Your task to perform on an android device: Open eBay Image 0: 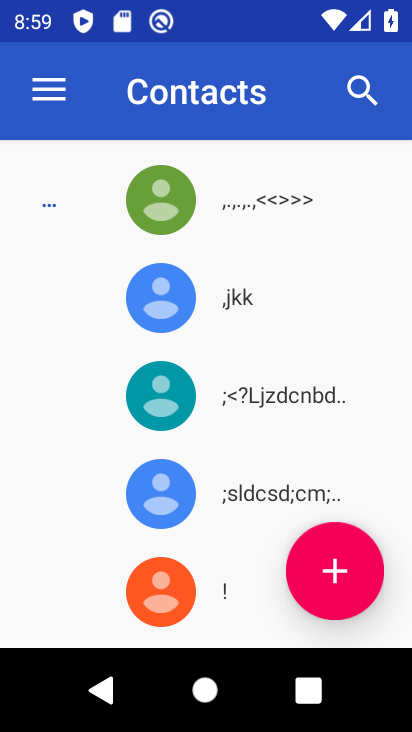
Step 0: press home button
Your task to perform on an android device: Open eBay Image 1: 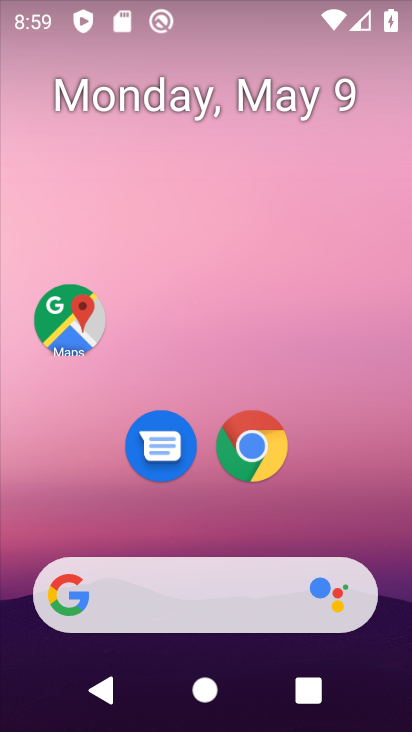
Step 1: click (240, 463)
Your task to perform on an android device: Open eBay Image 2: 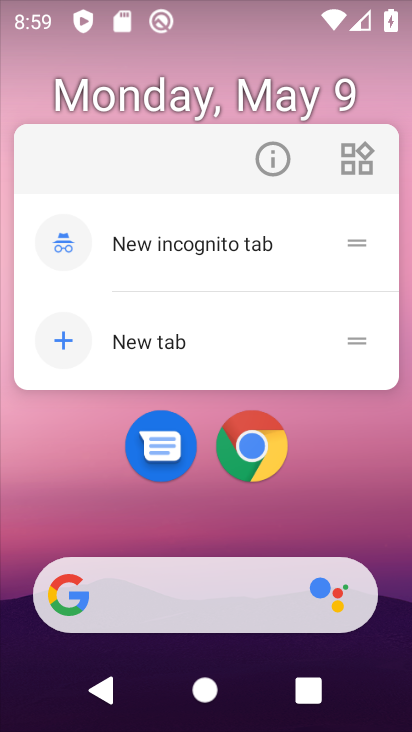
Step 2: click (243, 433)
Your task to perform on an android device: Open eBay Image 3: 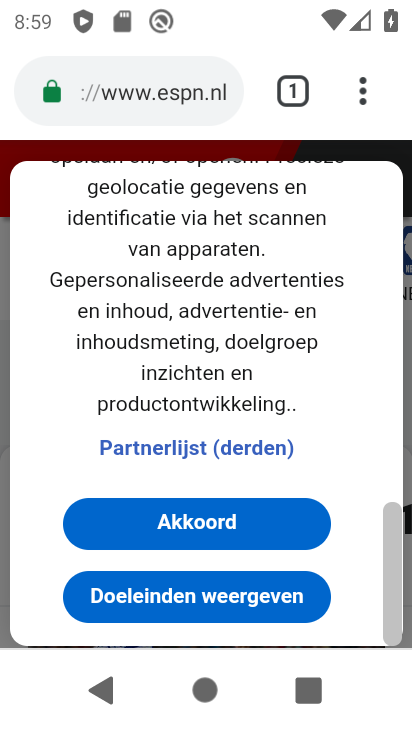
Step 3: click (217, 80)
Your task to perform on an android device: Open eBay Image 4: 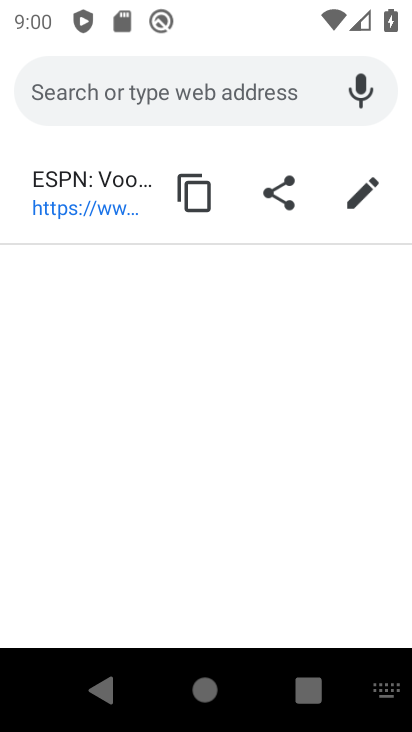
Step 4: type "ebay"
Your task to perform on an android device: Open eBay Image 5: 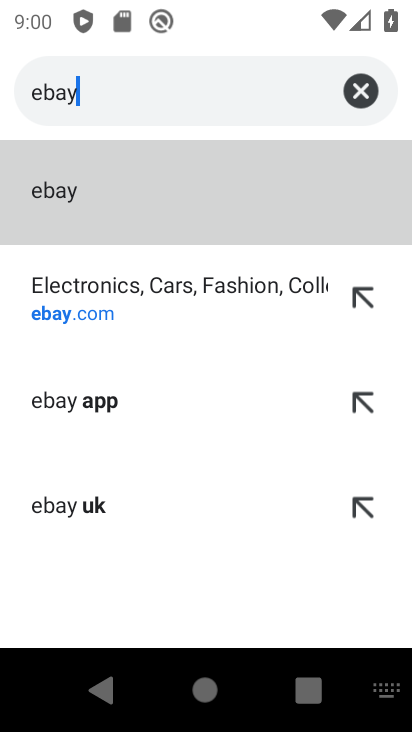
Step 5: click (204, 207)
Your task to perform on an android device: Open eBay Image 6: 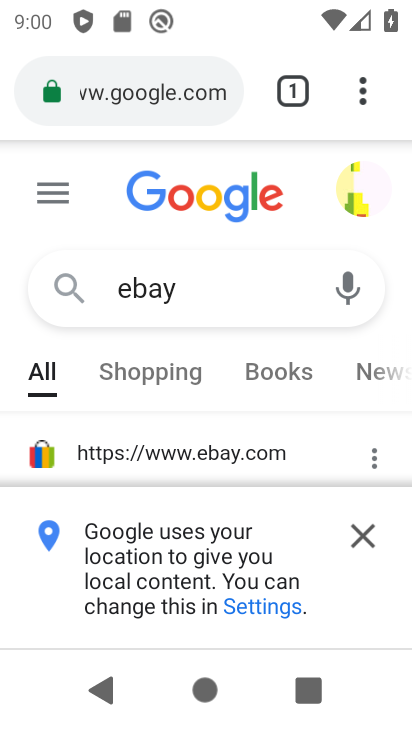
Step 6: click (360, 542)
Your task to perform on an android device: Open eBay Image 7: 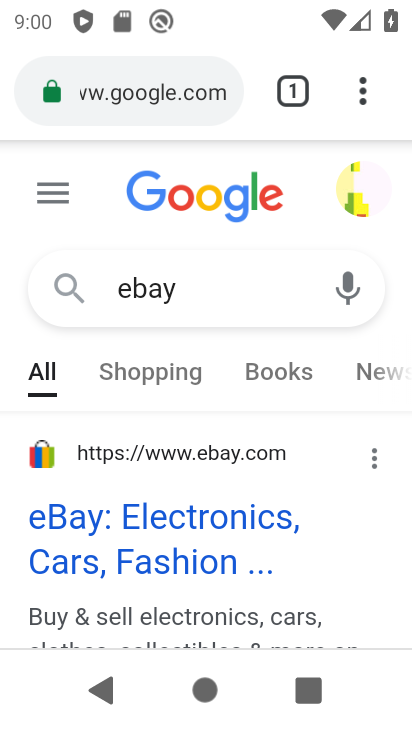
Step 7: drag from (306, 591) to (323, 457)
Your task to perform on an android device: Open eBay Image 8: 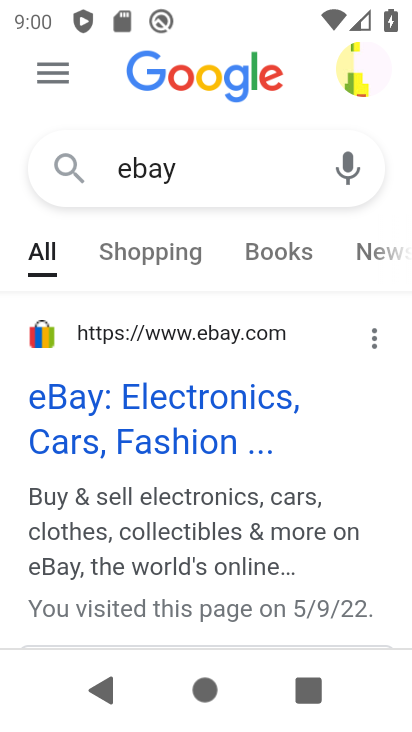
Step 8: click (176, 414)
Your task to perform on an android device: Open eBay Image 9: 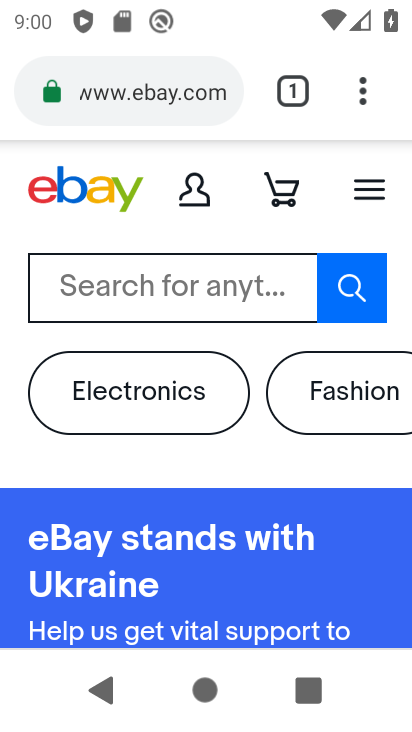
Step 9: task complete